Your task to perform on an android device: open the mobile data screen to see how much data has been used Image 0: 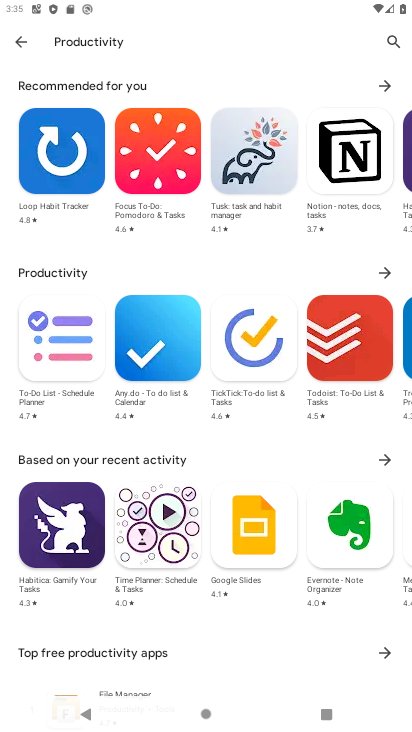
Step 0: press home button
Your task to perform on an android device: open the mobile data screen to see how much data has been used Image 1: 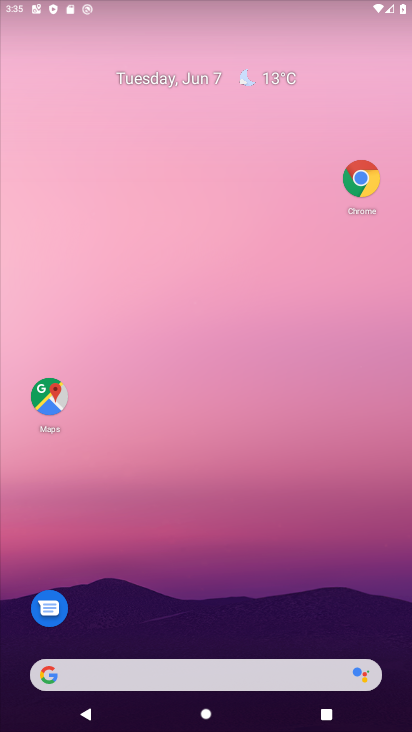
Step 1: drag from (222, 671) to (254, 351)
Your task to perform on an android device: open the mobile data screen to see how much data has been used Image 2: 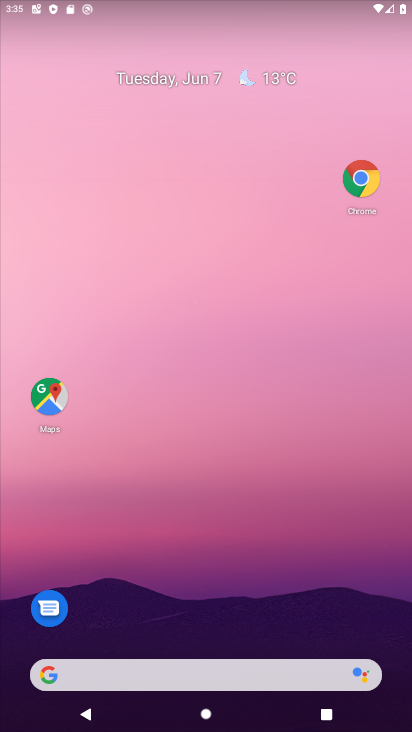
Step 2: drag from (199, 626) to (270, 198)
Your task to perform on an android device: open the mobile data screen to see how much data has been used Image 3: 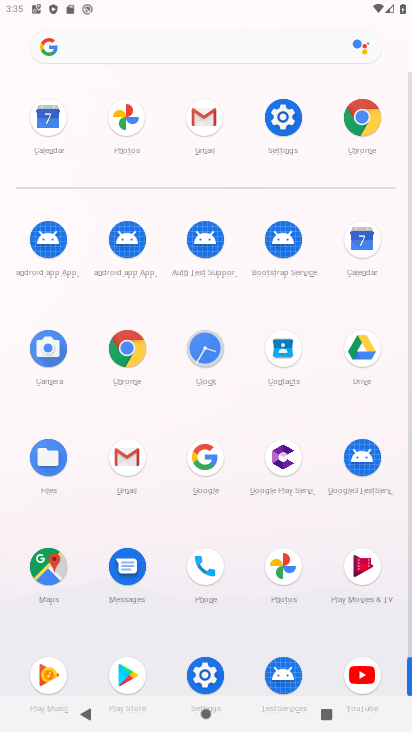
Step 3: click (207, 684)
Your task to perform on an android device: open the mobile data screen to see how much data has been used Image 4: 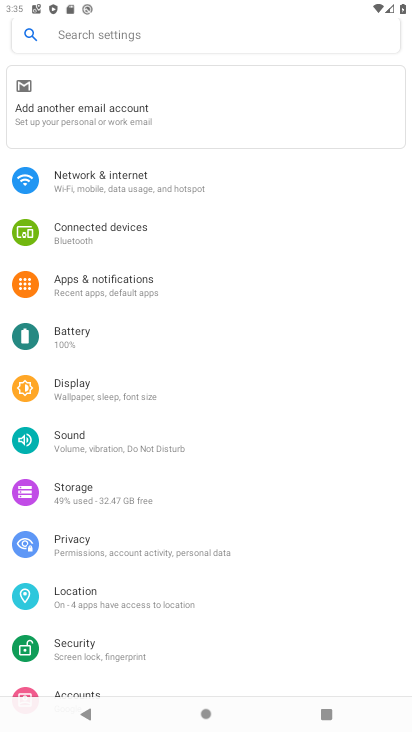
Step 4: click (154, 184)
Your task to perform on an android device: open the mobile data screen to see how much data has been used Image 5: 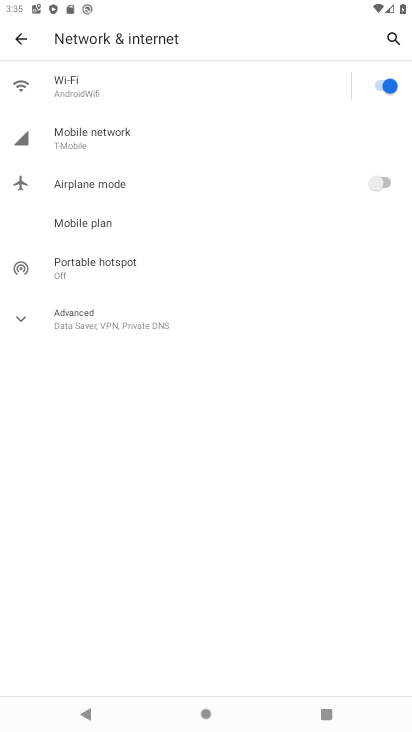
Step 5: click (157, 135)
Your task to perform on an android device: open the mobile data screen to see how much data has been used Image 6: 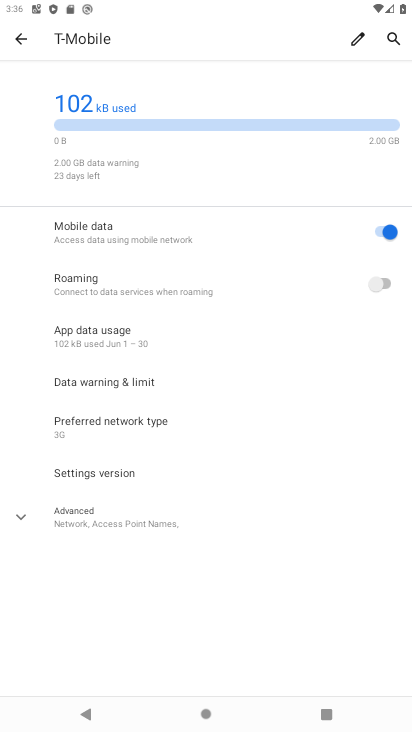
Step 6: task complete